Your task to perform on an android device: turn on location history Image 0: 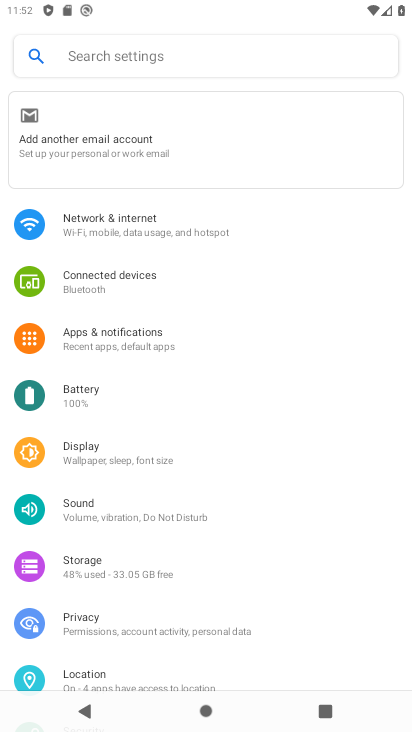
Step 0: press home button
Your task to perform on an android device: turn on location history Image 1: 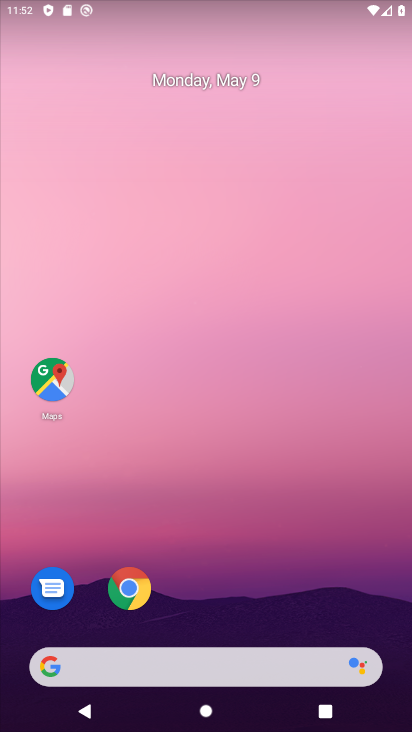
Step 1: drag from (280, 573) to (277, 70)
Your task to perform on an android device: turn on location history Image 2: 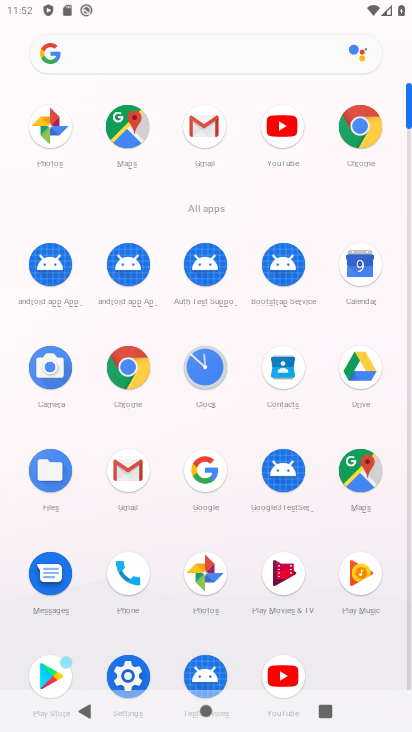
Step 2: click (132, 670)
Your task to perform on an android device: turn on location history Image 3: 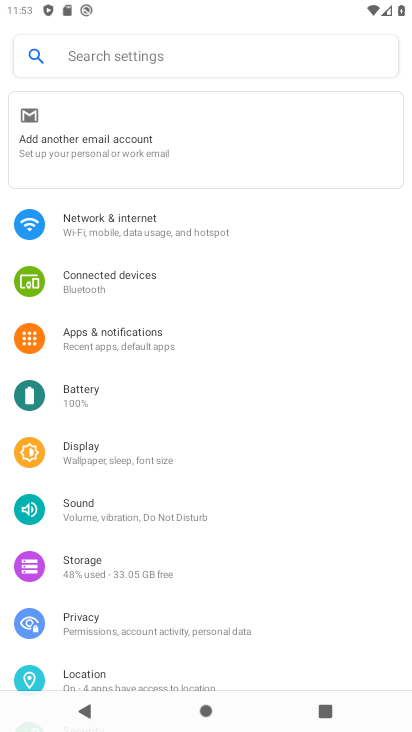
Step 3: click (146, 675)
Your task to perform on an android device: turn on location history Image 4: 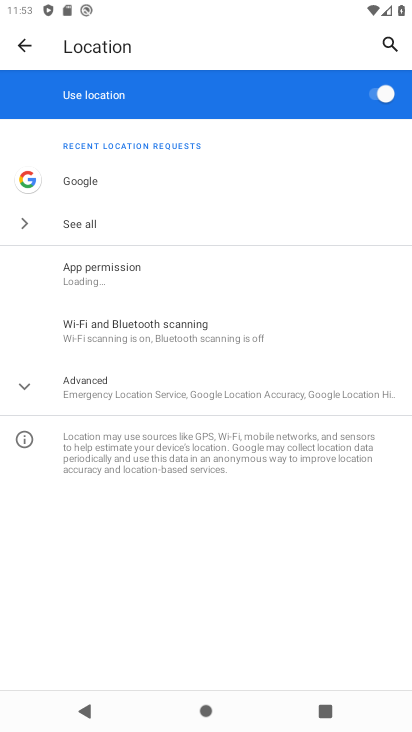
Step 4: click (24, 385)
Your task to perform on an android device: turn on location history Image 5: 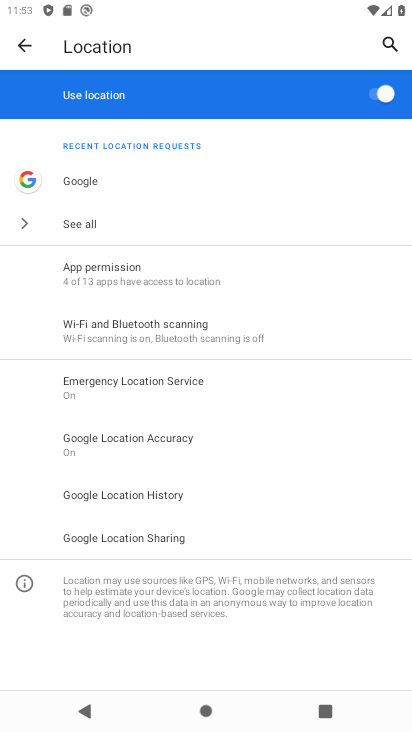
Step 5: click (153, 497)
Your task to perform on an android device: turn on location history Image 6: 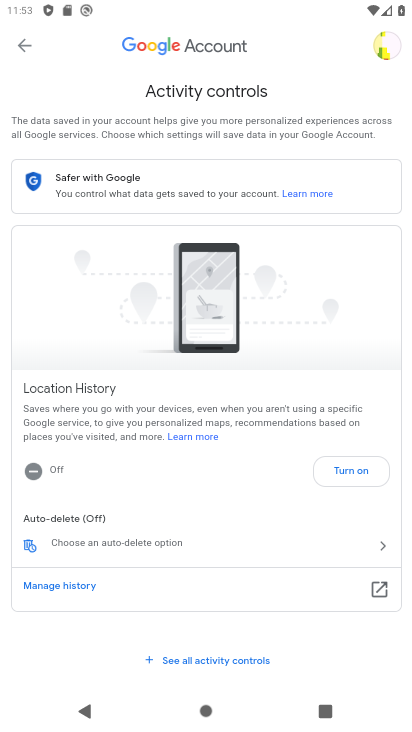
Step 6: click (337, 458)
Your task to perform on an android device: turn on location history Image 7: 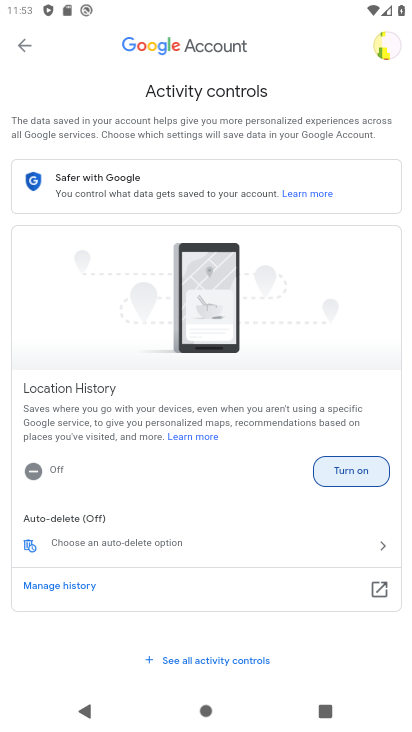
Step 7: click (341, 461)
Your task to perform on an android device: turn on location history Image 8: 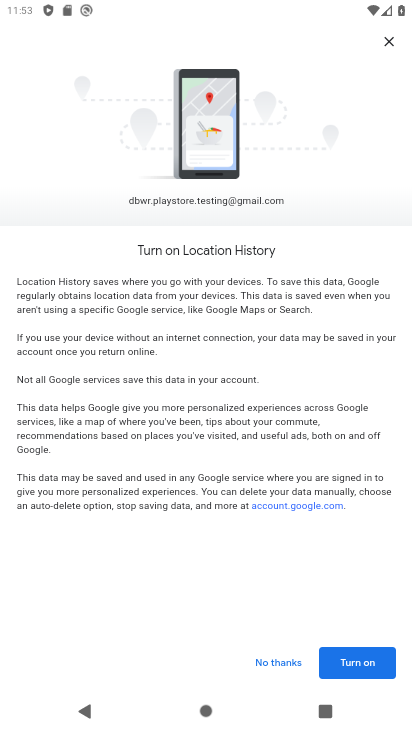
Step 8: click (366, 658)
Your task to perform on an android device: turn on location history Image 9: 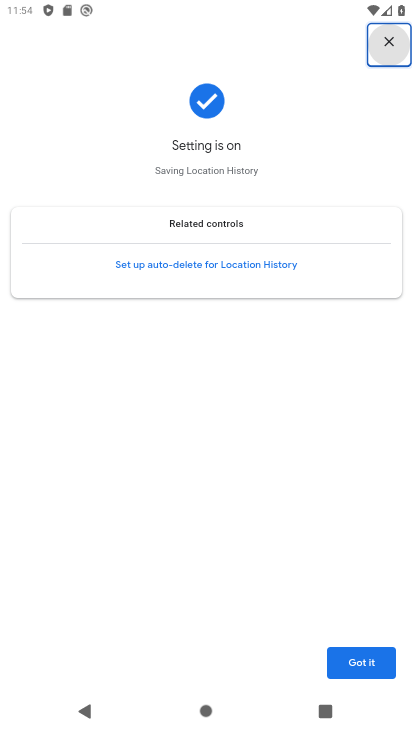
Step 9: click (374, 653)
Your task to perform on an android device: turn on location history Image 10: 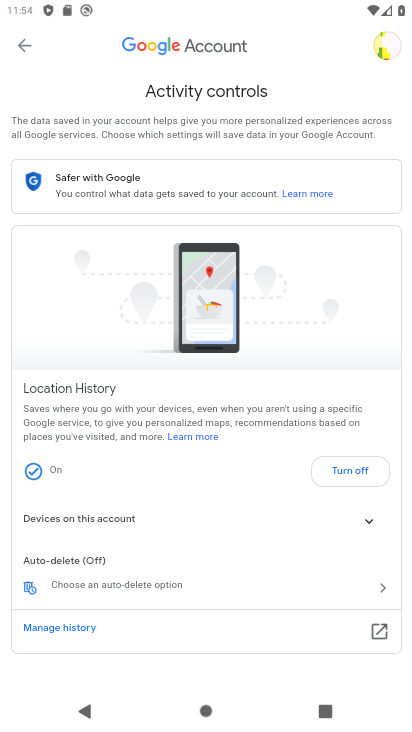
Step 10: task complete